Your task to perform on an android device: toggle translation in the chrome app Image 0: 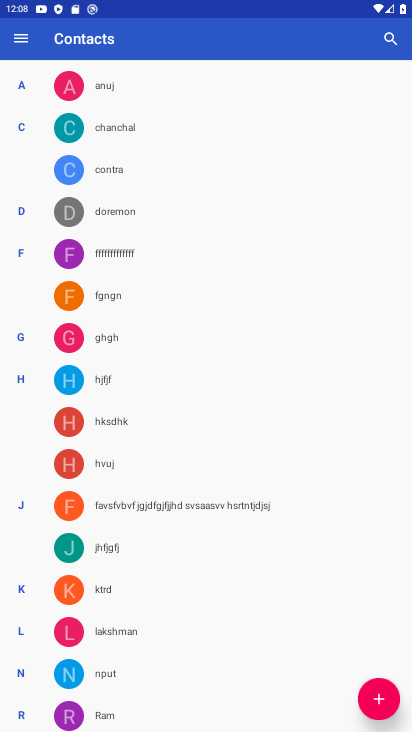
Step 0: press home button
Your task to perform on an android device: toggle translation in the chrome app Image 1: 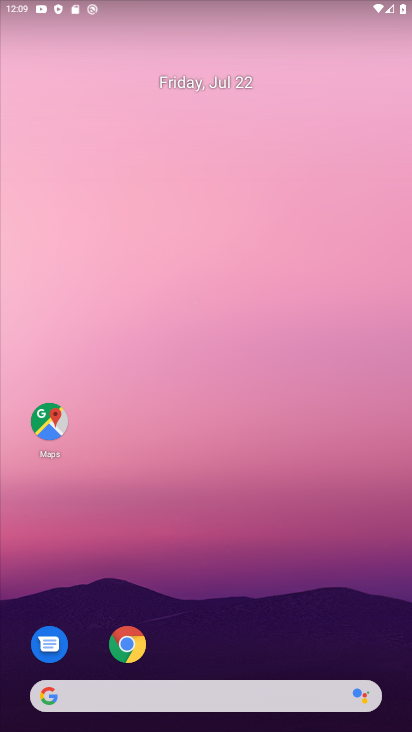
Step 1: click (120, 643)
Your task to perform on an android device: toggle translation in the chrome app Image 2: 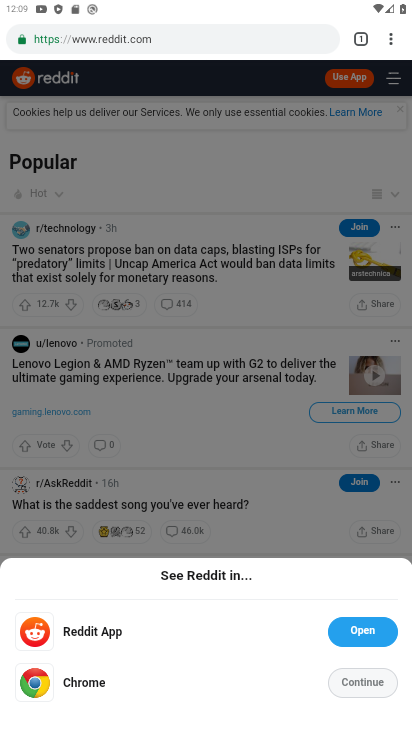
Step 2: click (396, 41)
Your task to perform on an android device: toggle translation in the chrome app Image 3: 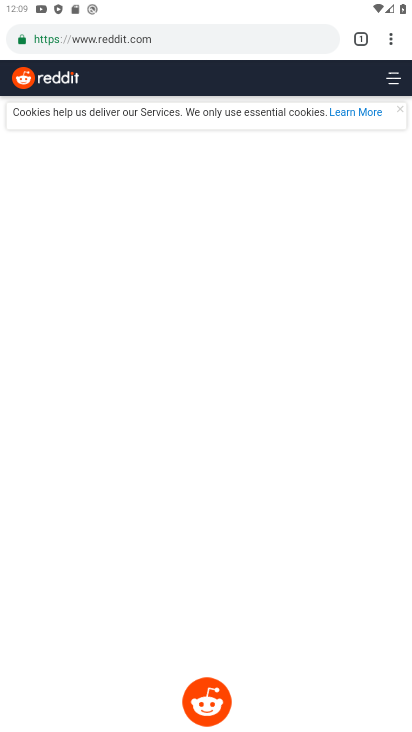
Step 3: click (394, 38)
Your task to perform on an android device: toggle translation in the chrome app Image 4: 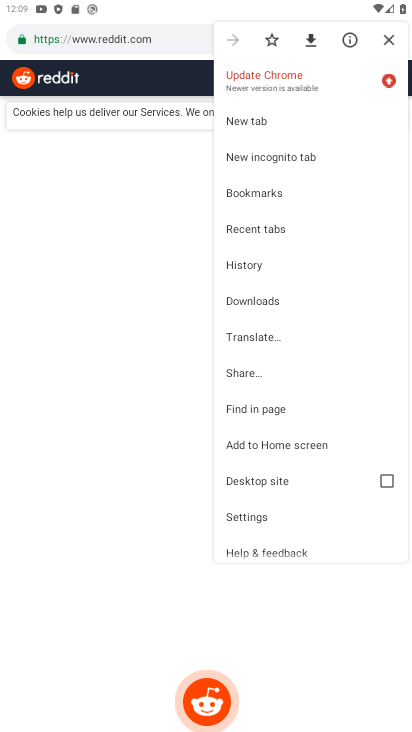
Step 4: click (260, 340)
Your task to perform on an android device: toggle translation in the chrome app Image 5: 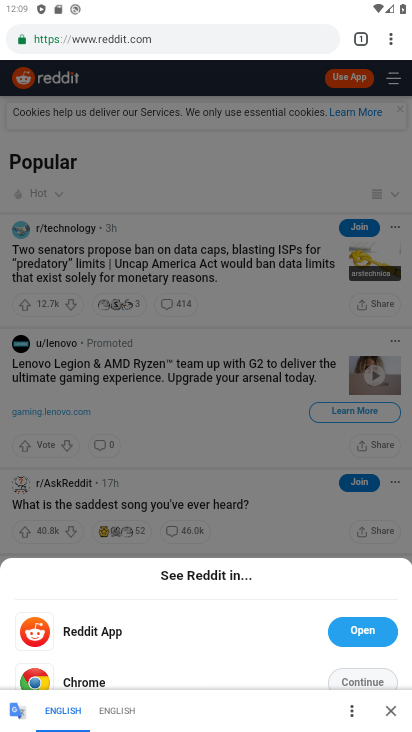
Step 5: click (392, 42)
Your task to perform on an android device: toggle translation in the chrome app Image 6: 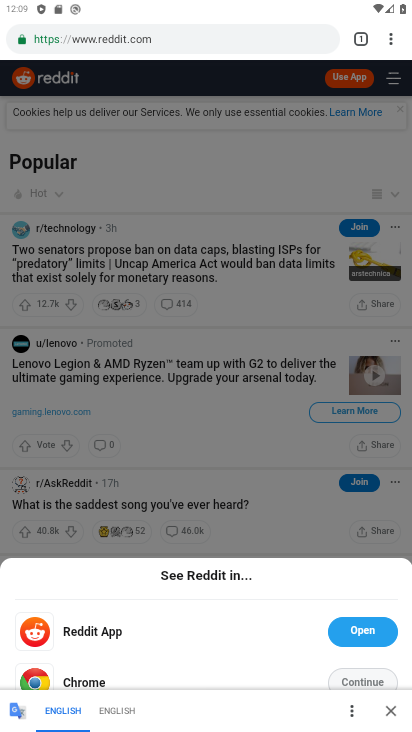
Step 6: click (392, 42)
Your task to perform on an android device: toggle translation in the chrome app Image 7: 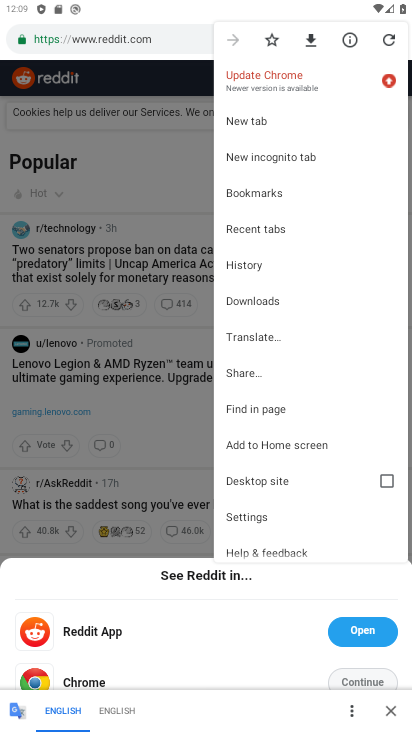
Step 7: click (355, 714)
Your task to perform on an android device: toggle translation in the chrome app Image 8: 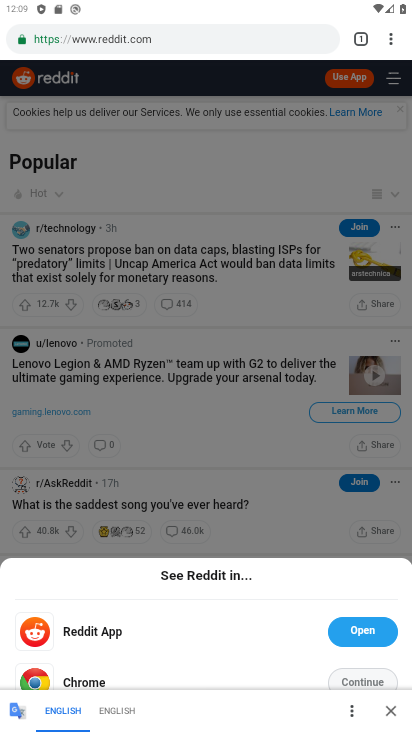
Step 8: click (352, 708)
Your task to perform on an android device: toggle translation in the chrome app Image 9: 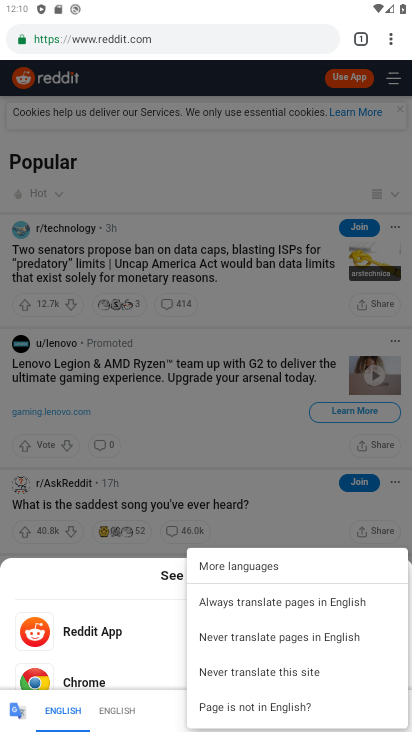
Step 9: click (283, 594)
Your task to perform on an android device: toggle translation in the chrome app Image 10: 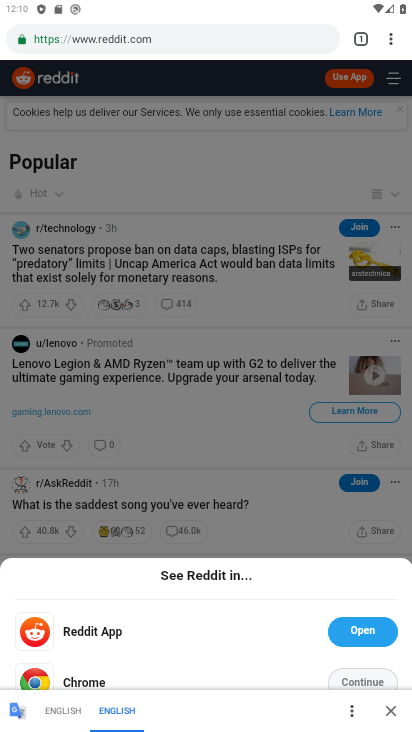
Step 10: click (389, 42)
Your task to perform on an android device: toggle translation in the chrome app Image 11: 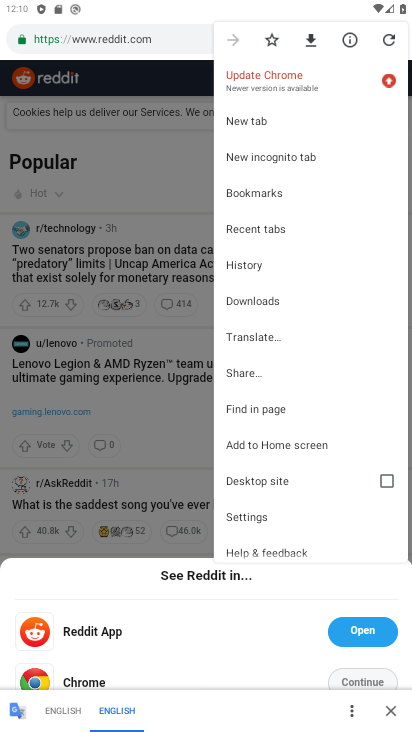
Step 11: click (269, 337)
Your task to perform on an android device: toggle translation in the chrome app Image 12: 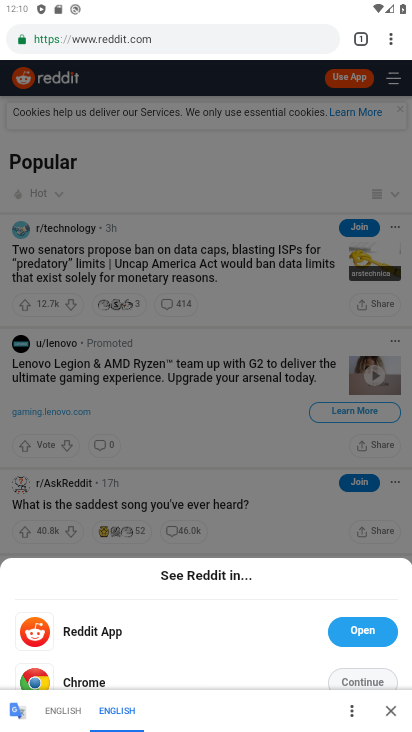
Step 12: click (392, 708)
Your task to perform on an android device: toggle translation in the chrome app Image 13: 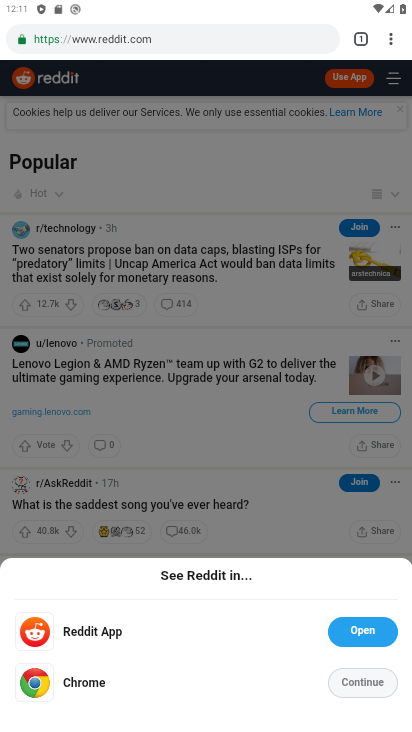
Step 13: click (393, 45)
Your task to perform on an android device: toggle translation in the chrome app Image 14: 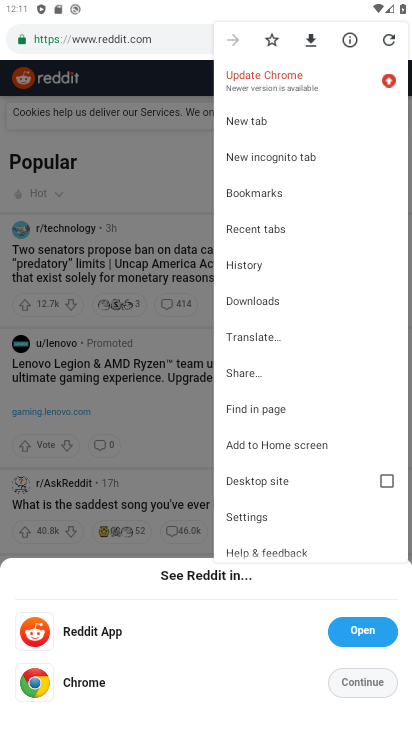
Step 14: click (264, 335)
Your task to perform on an android device: toggle translation in the chrome app Image 15: 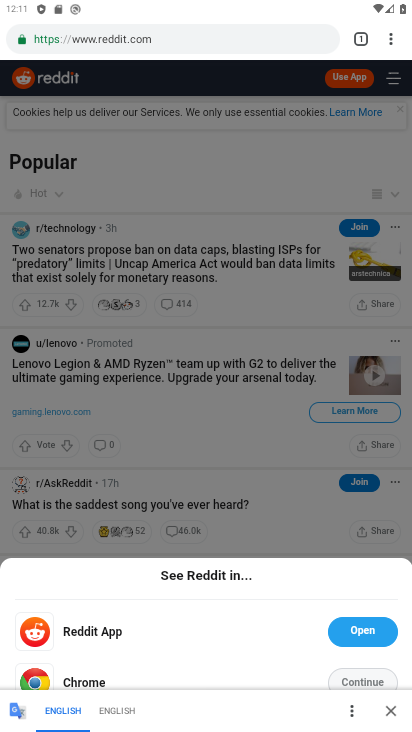
Step 15: task complete